Your task to perform on an android device: Turn on the flashlight Image 0: 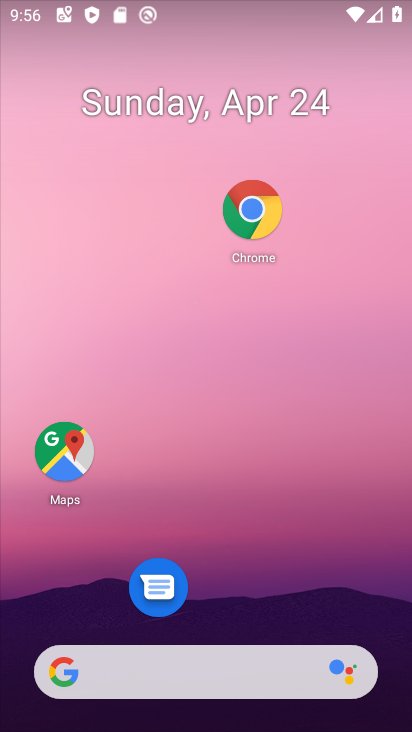
Step 0: drag from (212, 623) to (171, 17)
Your task to perform on an android device: Turn on the flashlight Image 1: 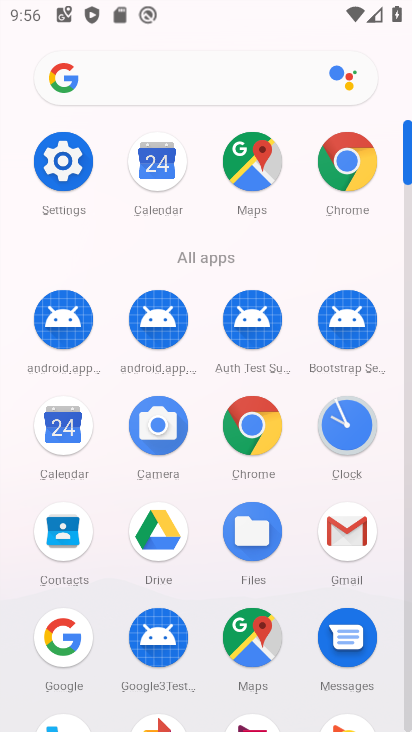
Step 1: click (60, 153)
Your task to perform on an android device: Turn on the flashlight Image 2: 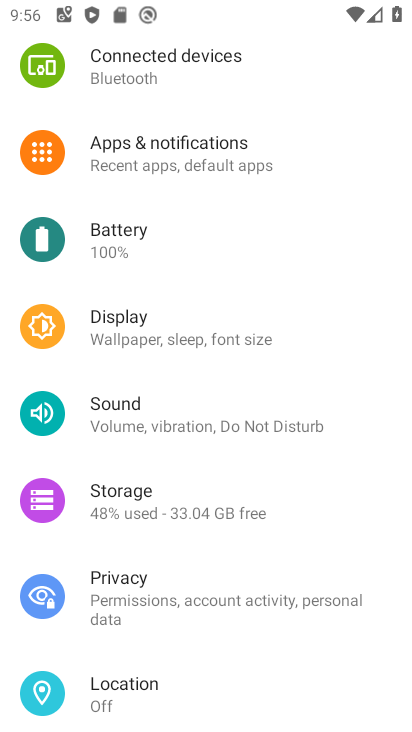
Step 2: drag from (196, 120) to (219, 654)
Your task to perform on an android device: Turn on the flashlight Image 3: 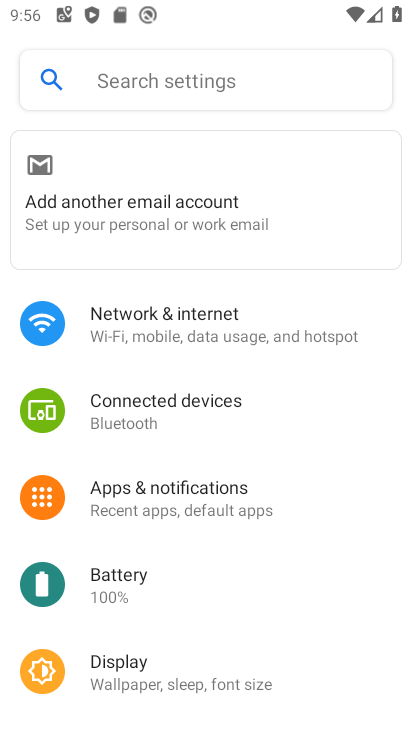
Step 3: click (134, 80)
Your task to perform on an android device: Turn on the flashlight Image 4: 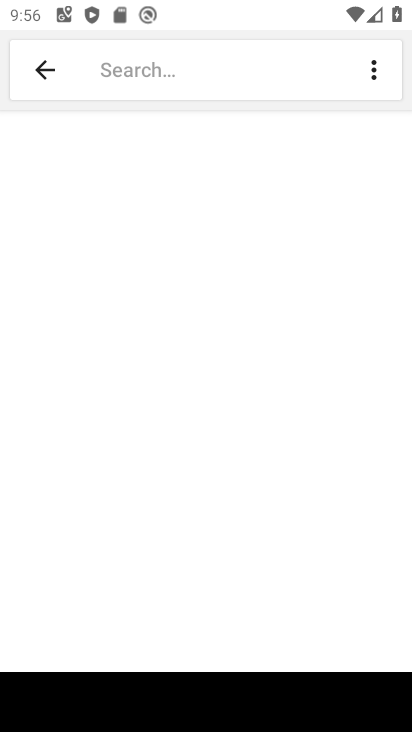
Step 4: click (139, 70)
Your task to perform on an android device: Turn on the flashlight Image 5: 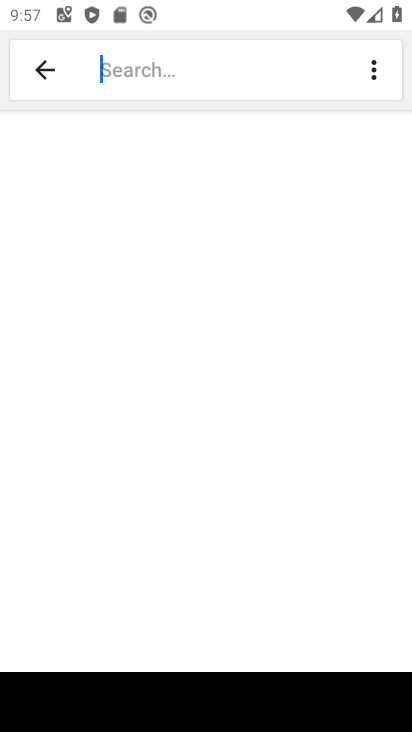
Step 5: type "flashlight"
Your task to perform on an android device: Turn on the flashlight Image 6: 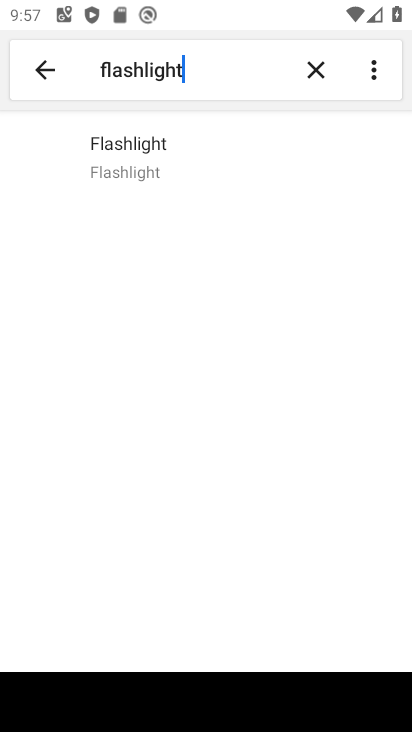
Step 6: click (170, 161)
Your task to perform on an android device: Turn on the flashlight Image 7: 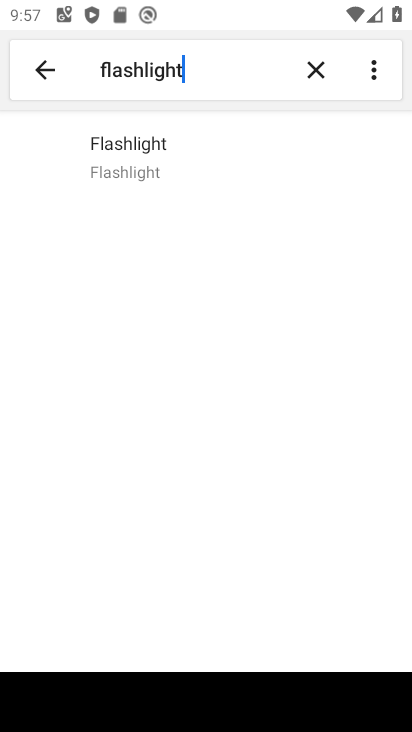
Step 7: click (179, 154)
Your task to perform on an android device: Turn on the flashlight Image 8: 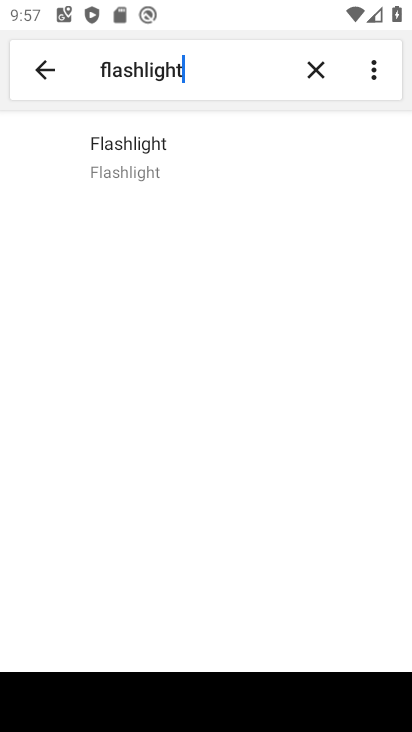
Step 8: task complete